Your task to perform on an android device: change the clock display to show seconds Image 0: 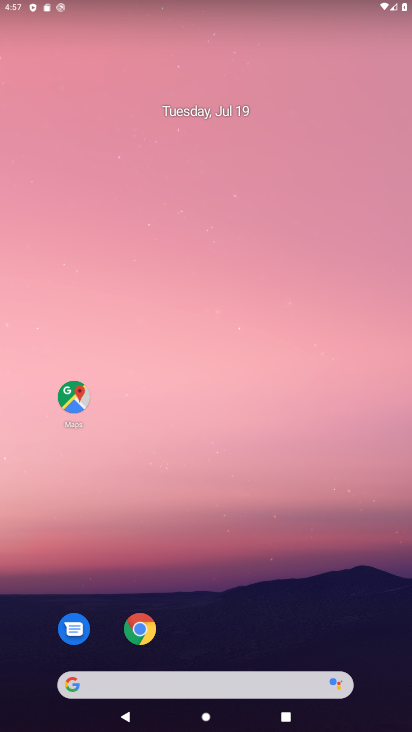
Step 0: press home button
Your task to perform on an android device: change the clock display to show seconds Image 1: 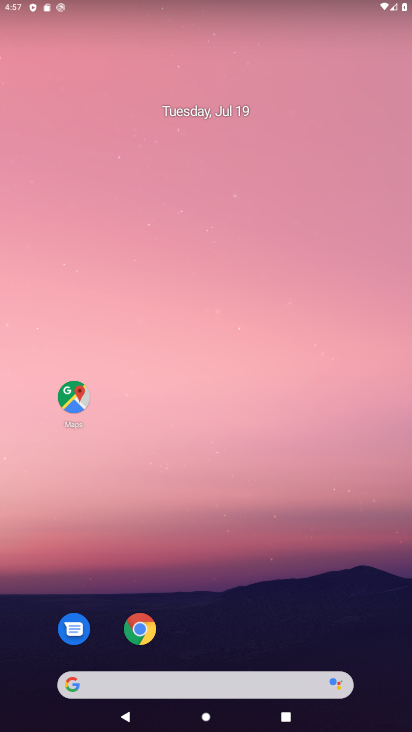
Step 1: drag from (245, 644) to (255, 0)
Your task to perform on an android device: change the clock display to show seconds Image 2: 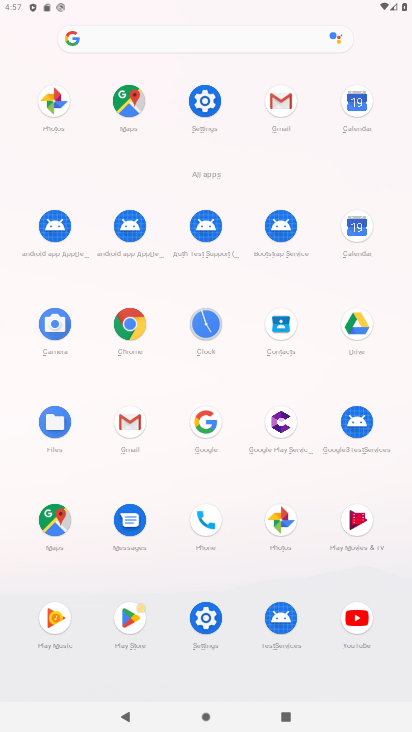
Step 2: click (201, 327)
Your task to perform on an android device: change the clock display to show seconds Image 3: 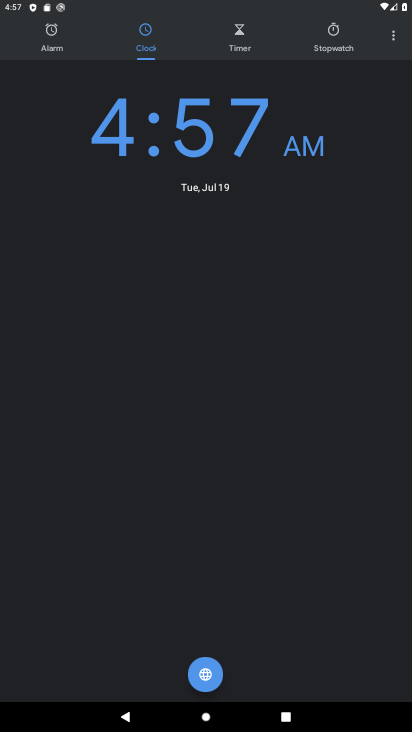
Step 3: click (396, 34)
Your task to perform on an android device: change the clock display to show seconds Image 4: 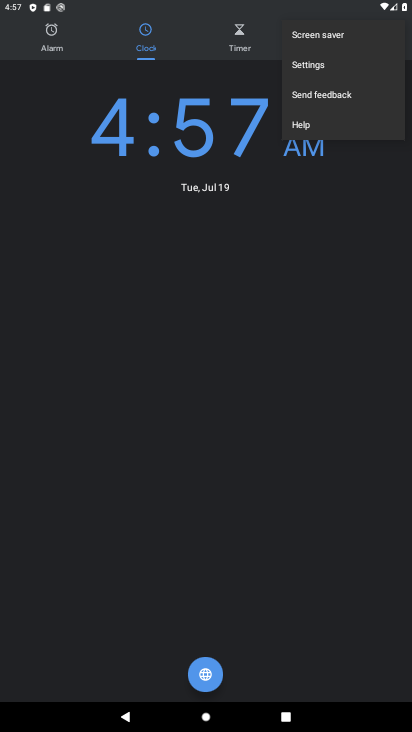
Step 4: click (299, 66)
Your task to perform on an android device: change the clock display to show seconds Image 5: 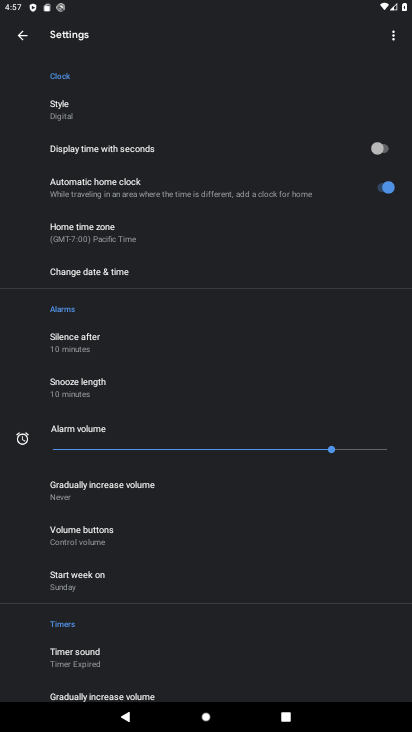
Step 5: click (379, 149)
Your task to perform on an android device: change the clock display to show seconds Image 6: 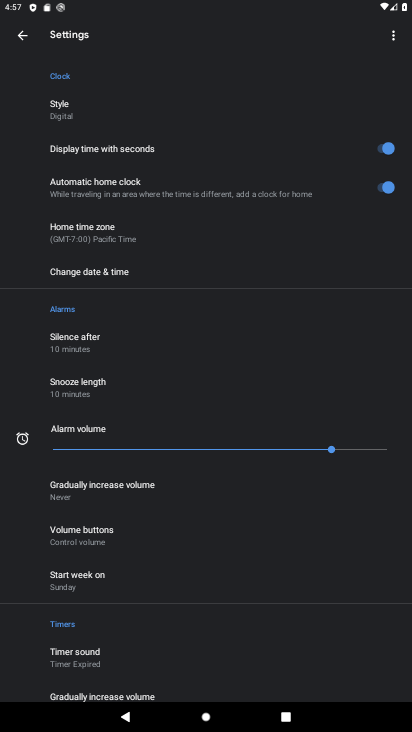
Step 6: task complete